Your task to perform on an android device: read, delete, or share a saved page in the chrome app Image 0: 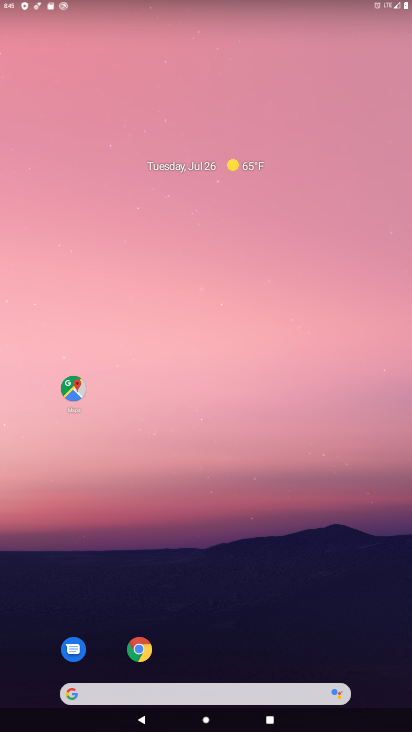
Step 0: click (141, 650)
Your task to perform on an android device: read, delete, or share a saved page in the chrome app Image 1: 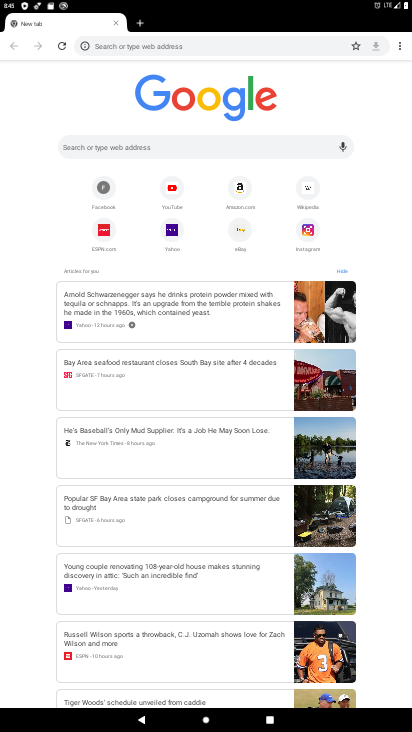
Step 1: click (400, 45)
Your task to perform on an android device: read, delete, or share a saved page in the chrome app Image 2: 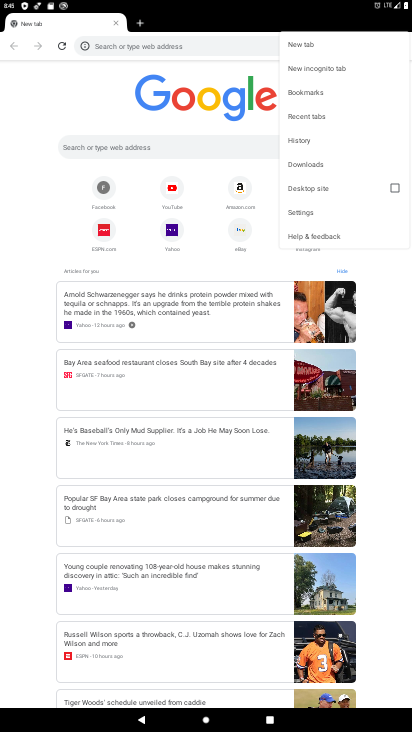
Step 2: click (317, 170)
Your task to perform on an android device: read, delete, or share a saved page in the chrome app Image 3: 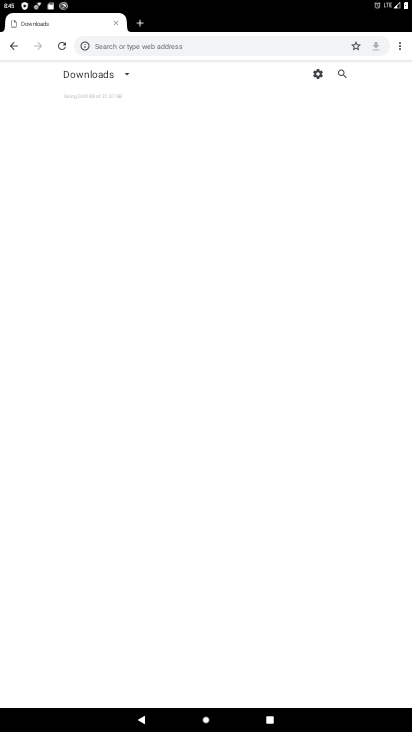
Step 3: click (126, 74)
Your task to perform on an android device: read, delete, or share a saved page in the chrome app Image 4: 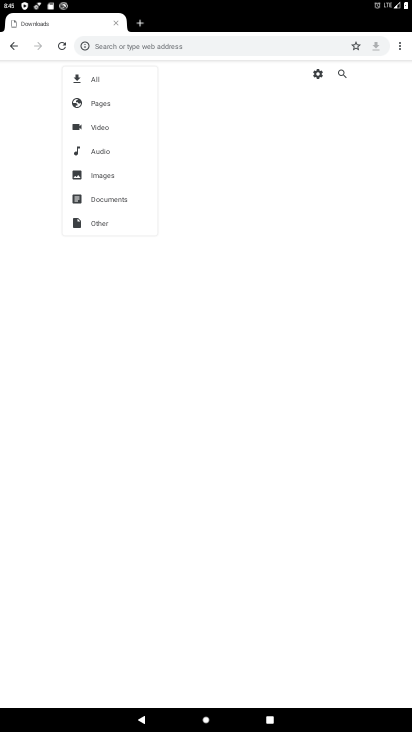
Step 4: click (107, 107)
Your task to perform on an android device: read, delete, or share a saved page in the chrome app Image 5: 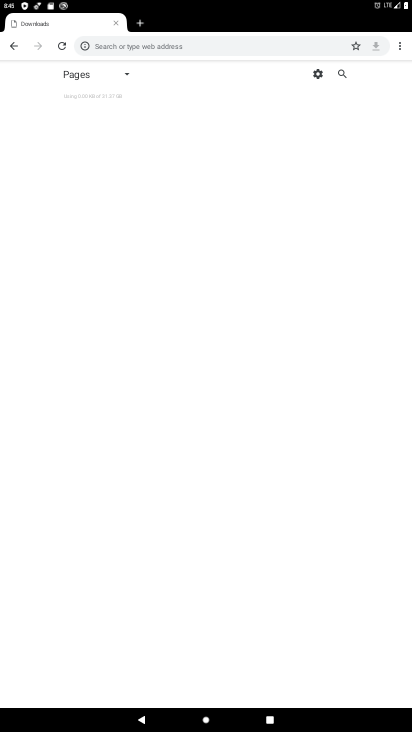
Step 5: click (127, 72)
Your task to perform on an android device: read, delete, or share a saved page in the chrome app Image 6: 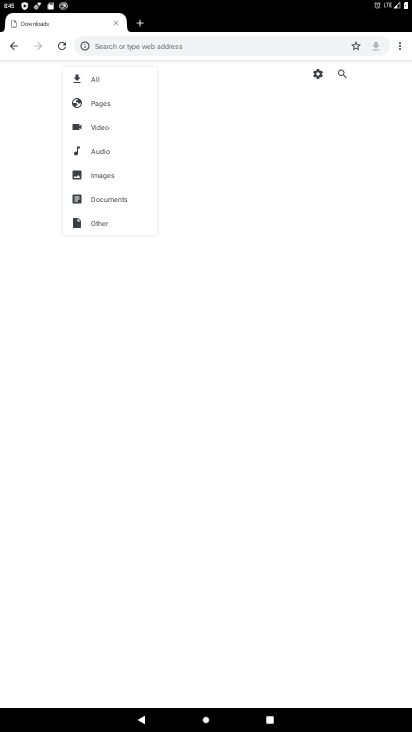
Step 6: click (100, 130)
Your task to perform on an android device: read, delete, or share a saved page in the chrome app Image 7: 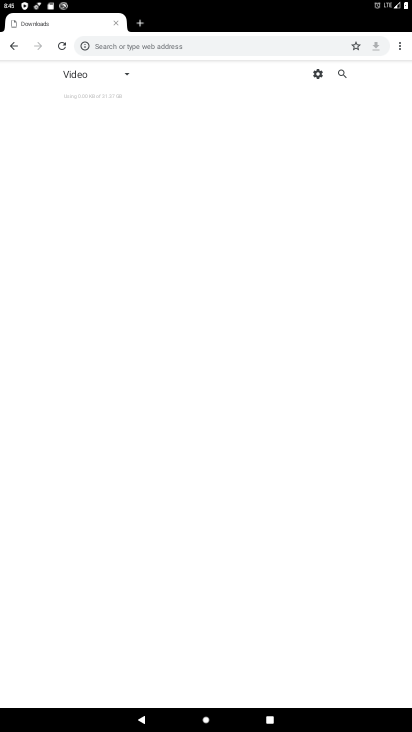
Step 7: click (126, 72)
Your task to perform on an android device: read, delete, or share a saved page in the chrome app Image 8: 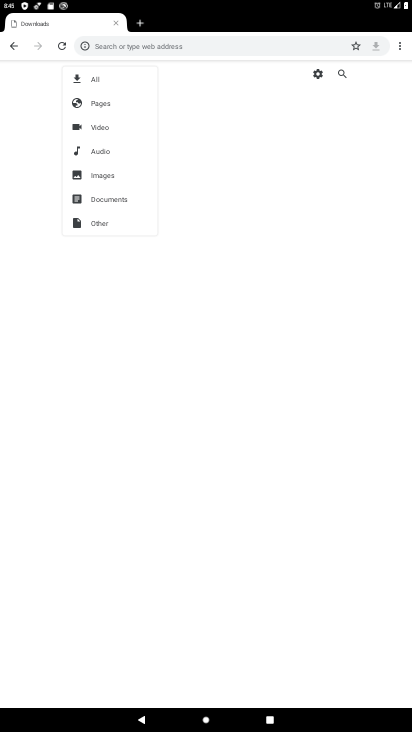
Step 8: click (100, 151)
Your task to perform on an android device: read, delete, or share a saved page in the chrome app Image 9: 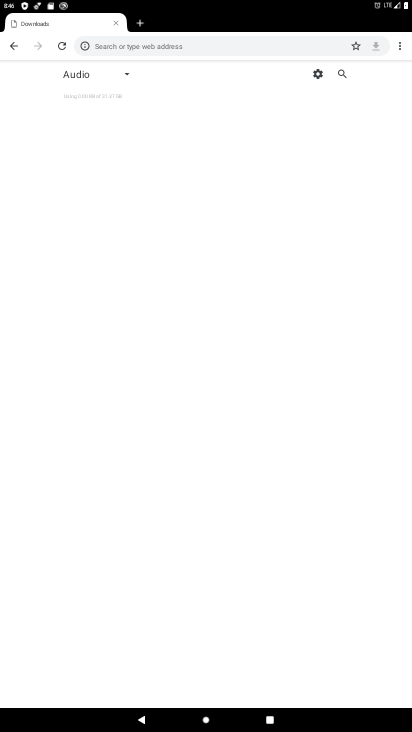
Step 9: click (100, 151)
Your task to perform on an android device: read, delete, or share a saved page in the chrome app Image 10: 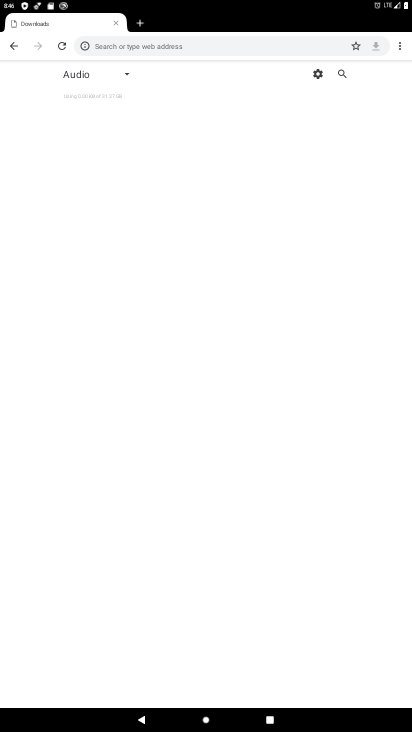
Step 10: click (127, 72)
Your task to perform on an android device: read, delete, or share a saved page in the chrome app Image 11: 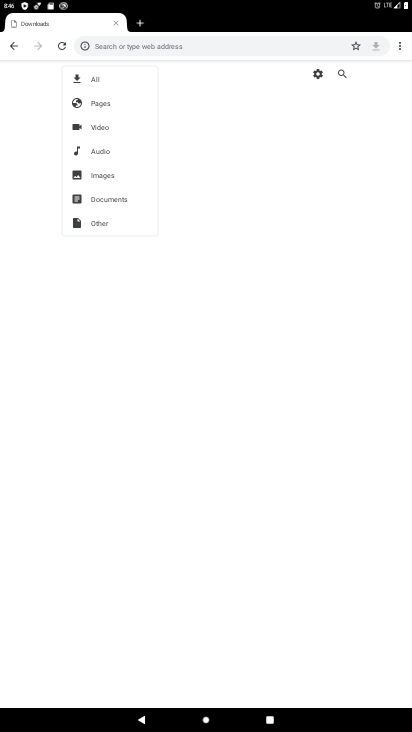
Step 11: click (94, 178)
Your task to perform on an android device: read, delete, or share a saved page in the chrome app Image 12: 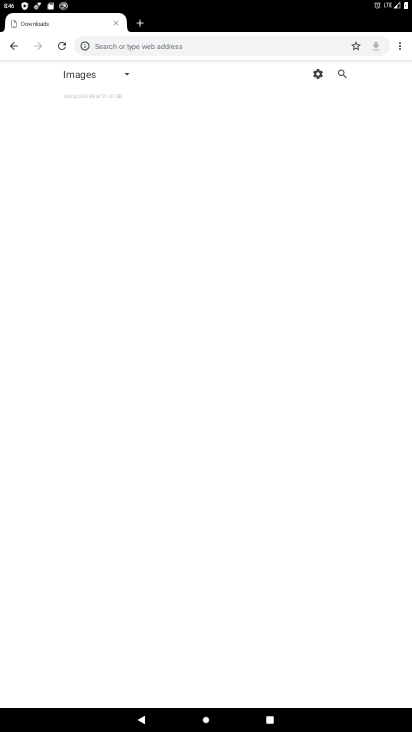
Step 12: click (128, 73)
Your task to perform on an android device: read, delete, or share a saved page in the chrome app Image 13: 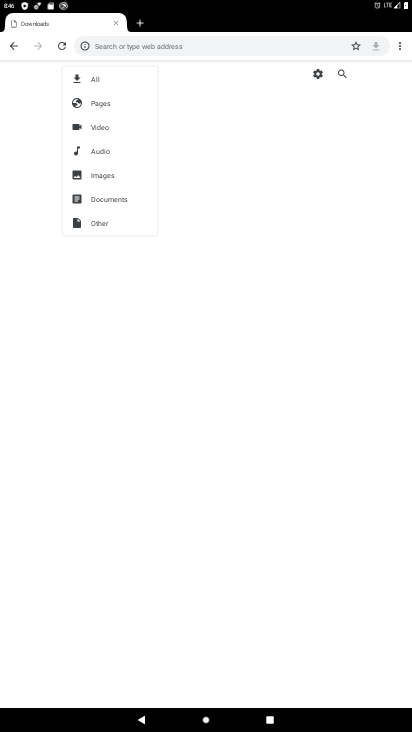
Step 13: click (99, 225)
Your task to perform on an android device: read, delete, or share a saved page in the chrome app Image 14: 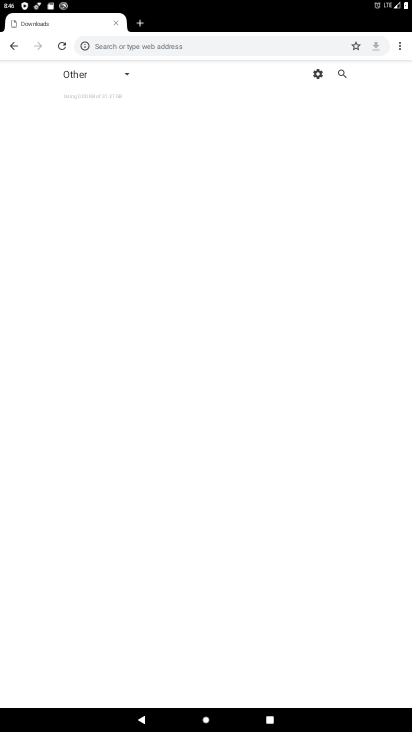
Step 14: task complete